Your task to perform on an android device: open app "Messenger Lite" Image 0: 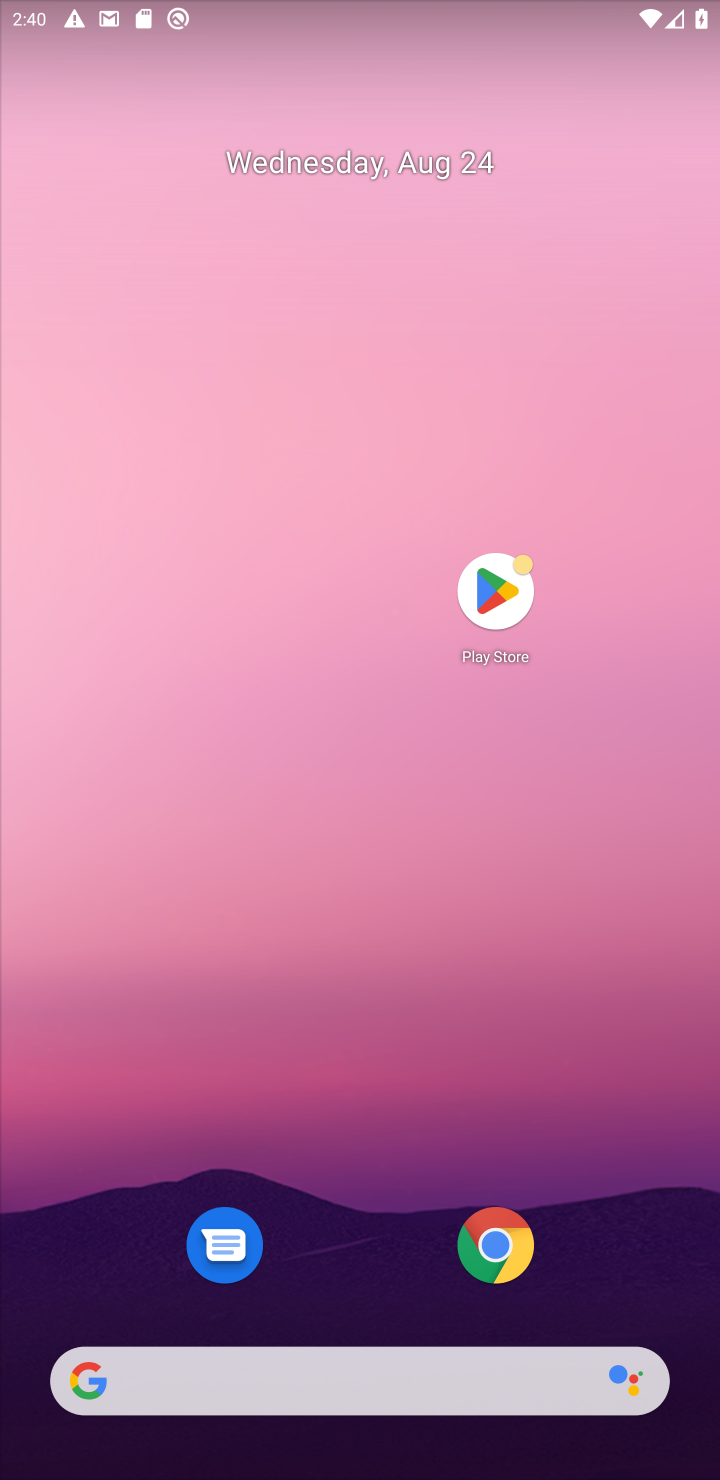
Step 0: click (504, 588)
Your task to perform on an android device: open app "Messenger Lite" Image 1: 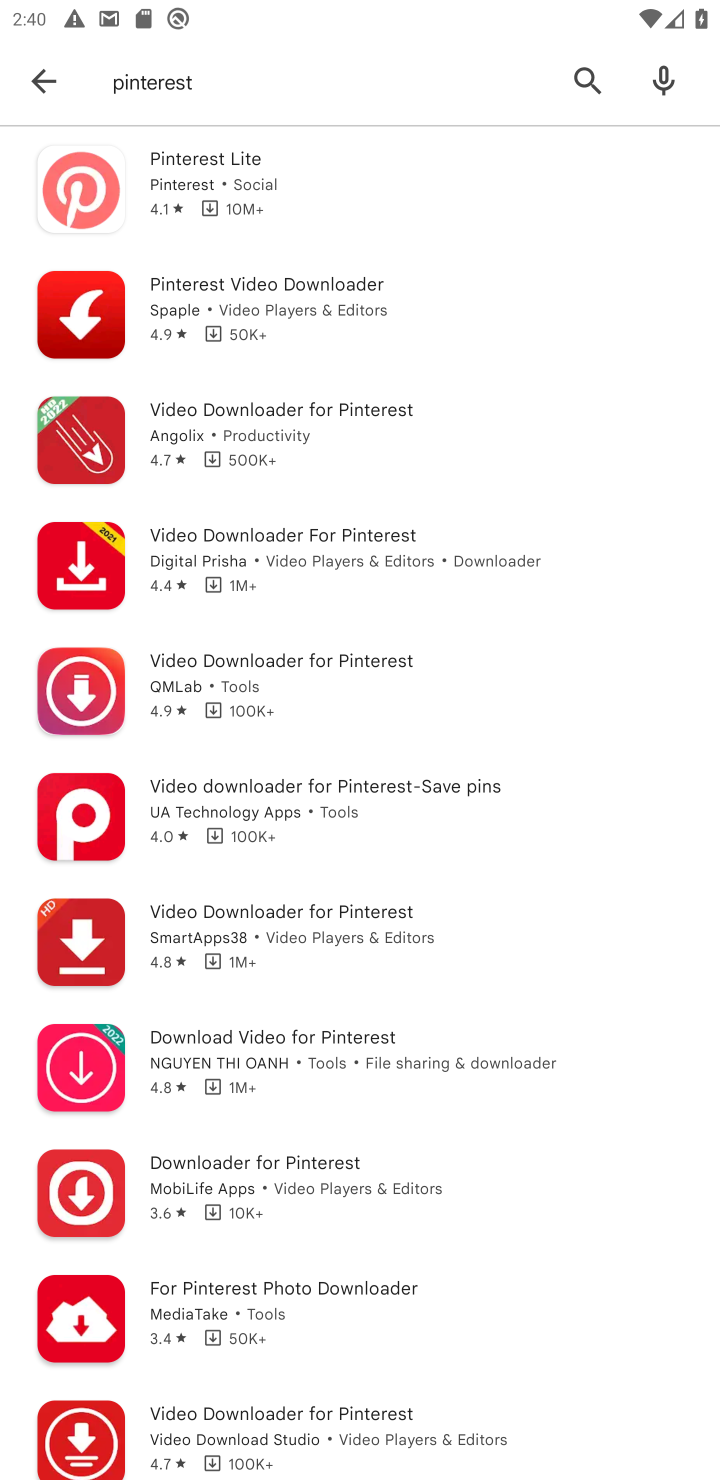
Step 1: click (587, 71)
Your task to perform on an android device: open app "Messenger Lite" Image 2: 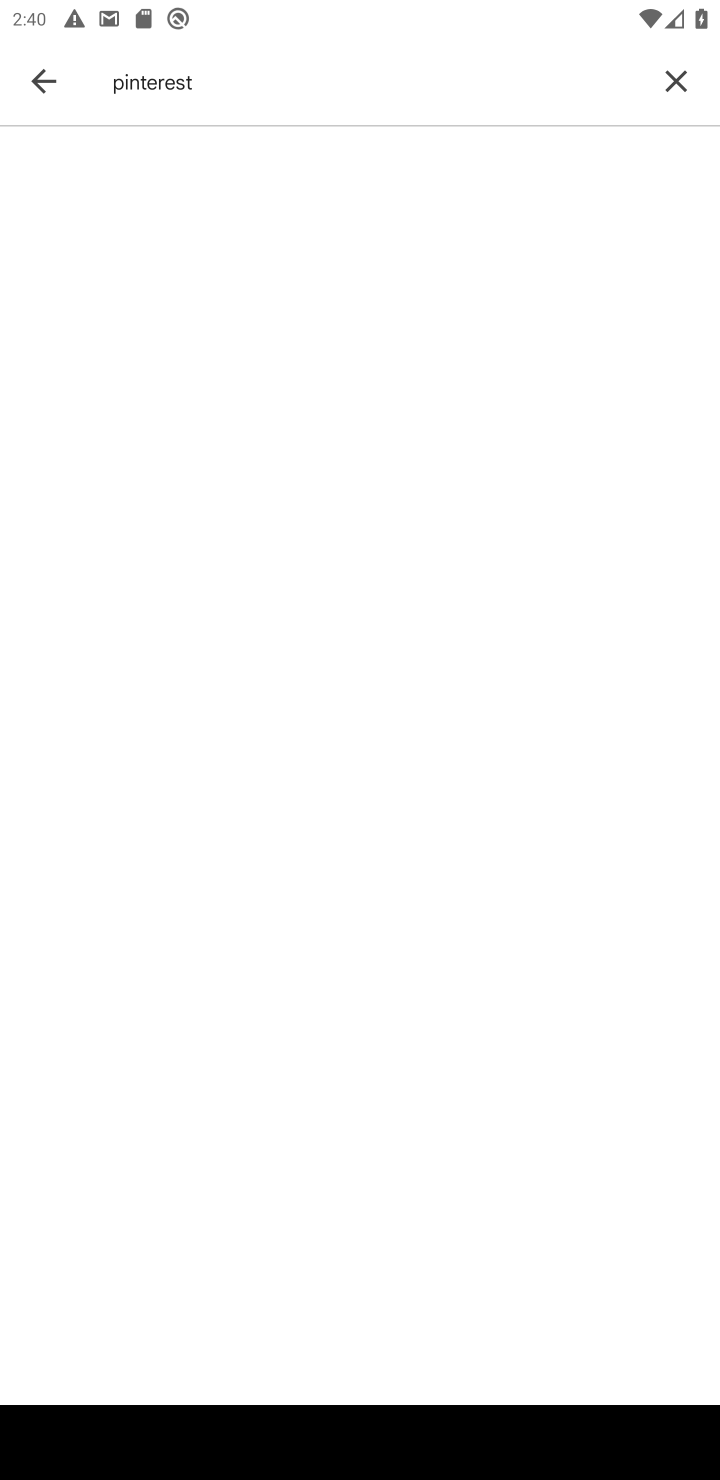
Step 2: click (671, 67)
Your task to perform on an android device: open app "Messenger Lite" Image 3: 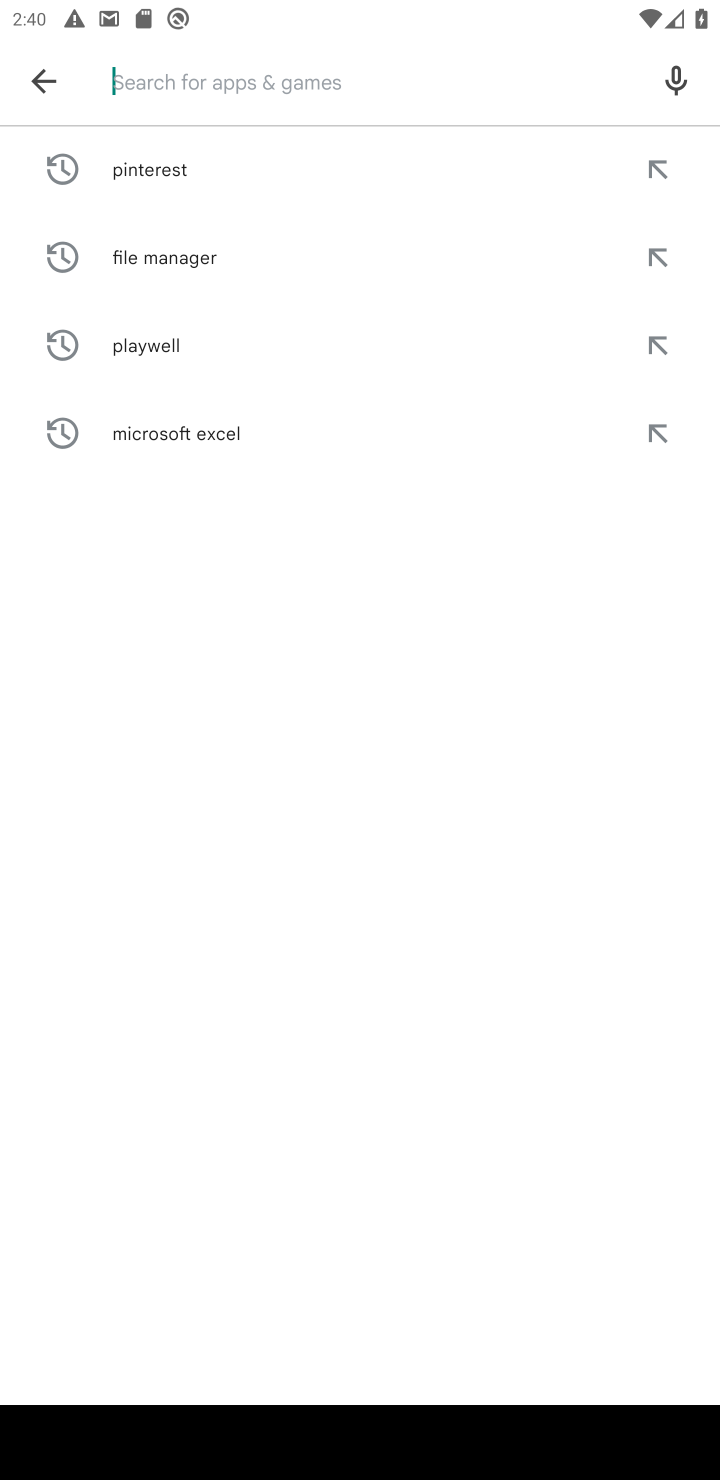
Step 3: type "Messenger Lite"
Your task to perform on an android device: open app "Messenger Lite" Image 4: 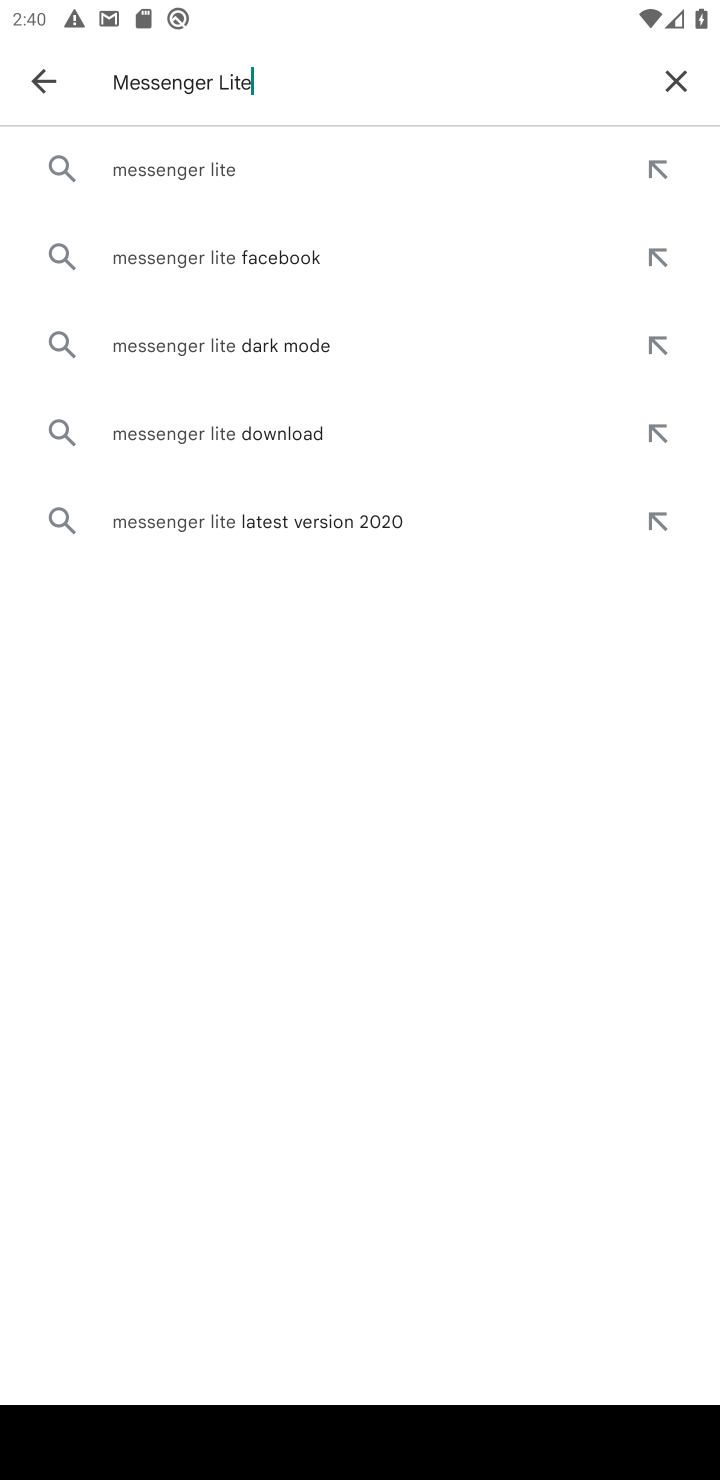
Step 4: click (224, 167)
Your task to perform on an android device: open app "Messenger Lite" Image 5: 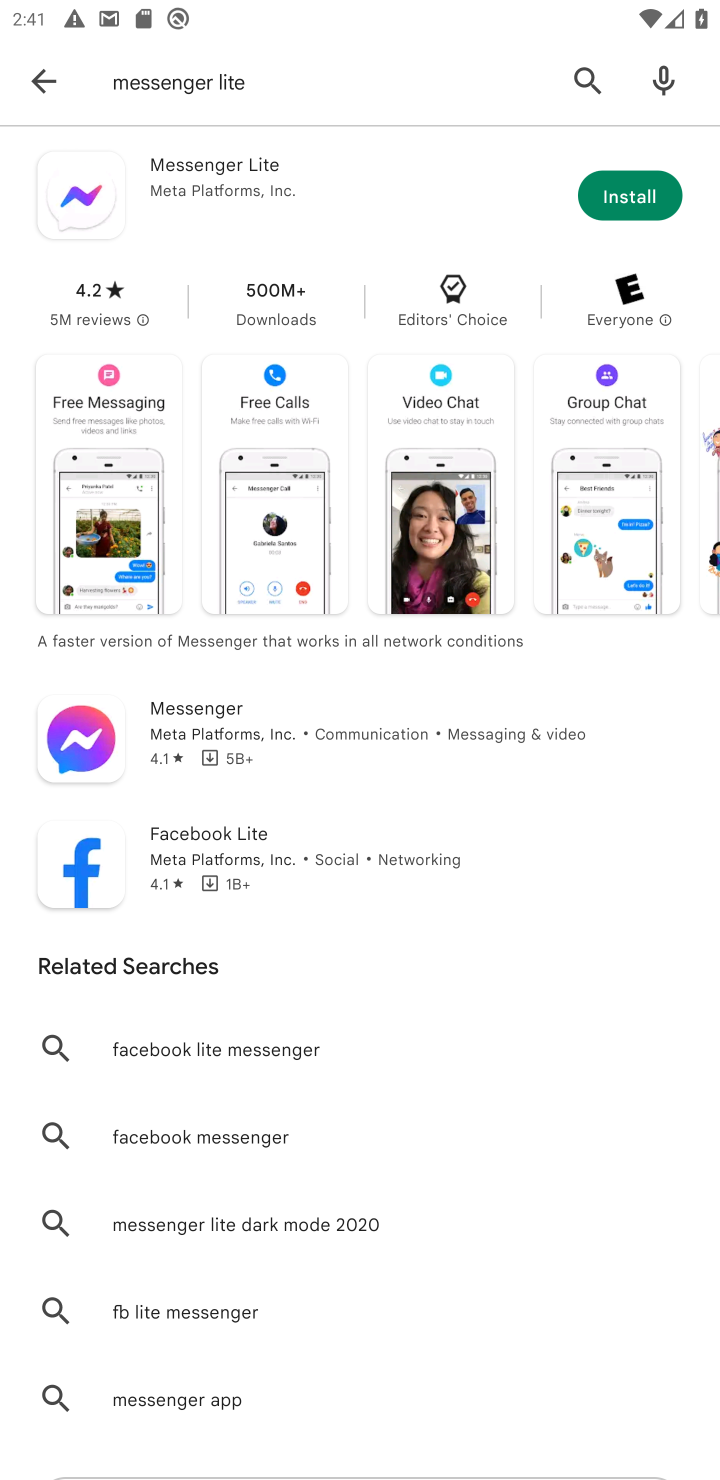
Step 5: task complete